Your task to perform on an android device: turn on bluetooth scan Image 0: 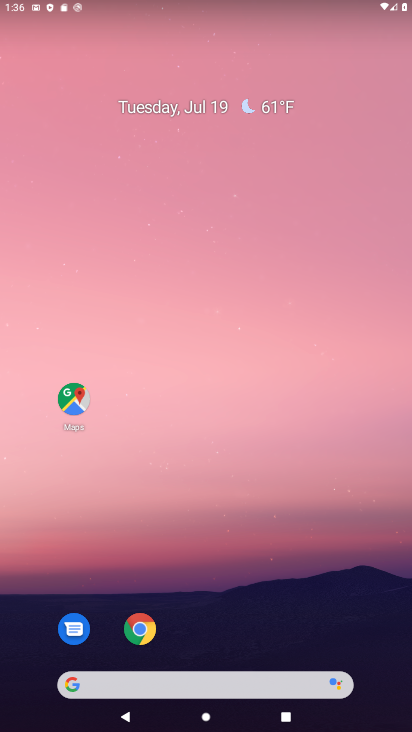
Step 0: drag from (386, 653) to (323, 62)
Your task to perform on an android device: turn on bluetooth scan Image 1: 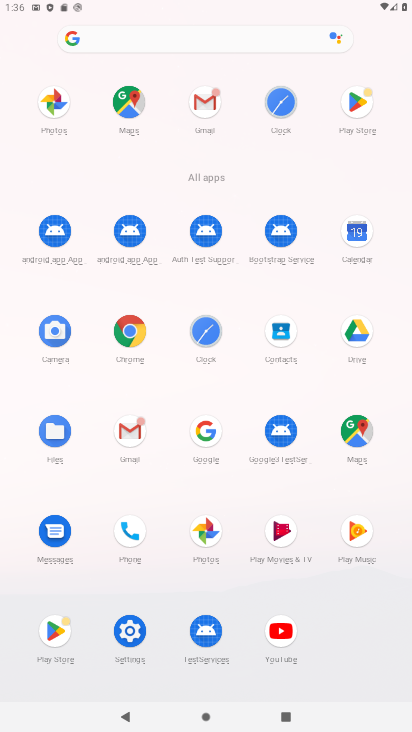
Step 1: click (131, 632)
Your task to perform on an android device: turn on bluetooth scan Image 2: 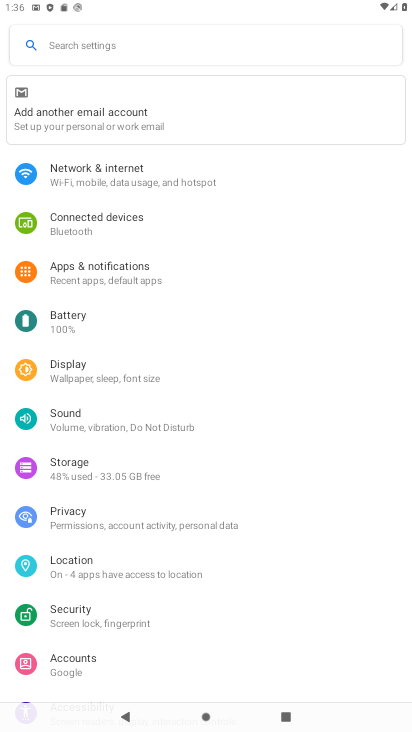
Step 2: click (64, 565)
Your task to perform on an android device: turn on bluetooth scan Image 3: 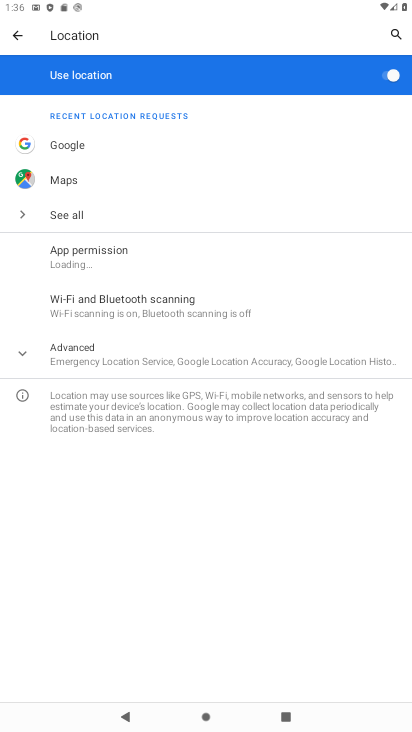
Step 3: click (81, 309)
Your task to perform on an android device: turn on bluetooth scan Image 4: 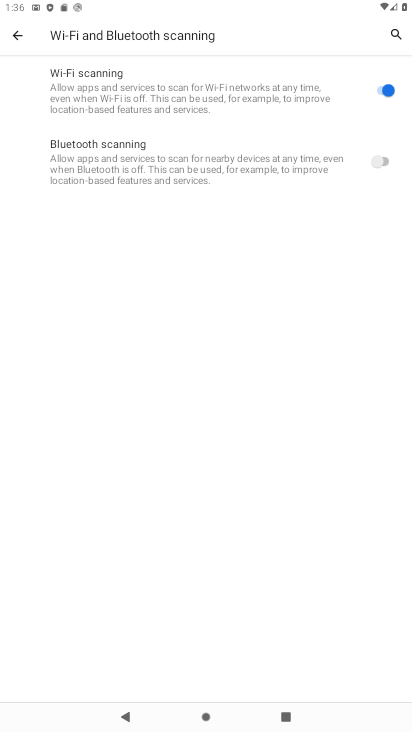
Step 4: click (383, 159)
Your task to perform on an android device: turn on bluetooth scan Image 5: 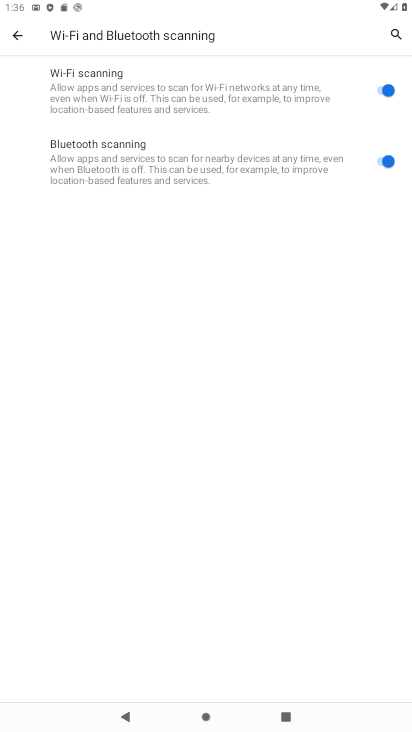
Step 5: task complete